Your task to perform on an android device: turn off translation in the chrome app Image 0: 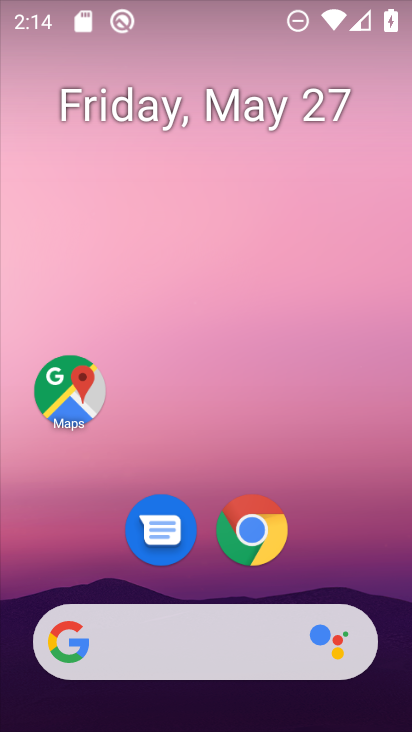
Step 0: click (238, 539)
Your task to perform on an android device: turn off translation in the chrome app Image 1: 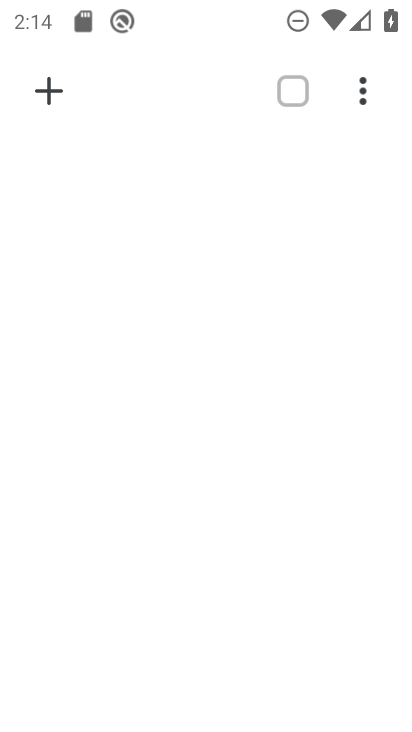
Step 1: click (359, 93)
Your task to perform on an android device: turn off translation in the chrome app Image 2: 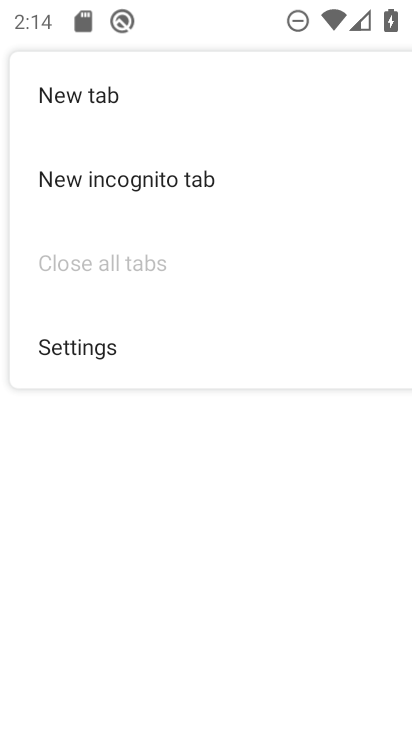
Step 2: click (101, 348)
Your task to perform on an android device: turn off translation in the chrome app Image 3: 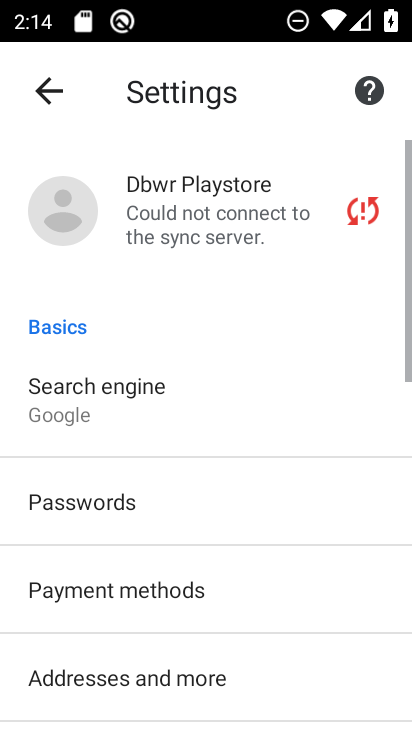
Step 3: drag from (272, 666) to (264, 249)
Your task to perform on an android device: turn off translation in the chrome app Image 4: 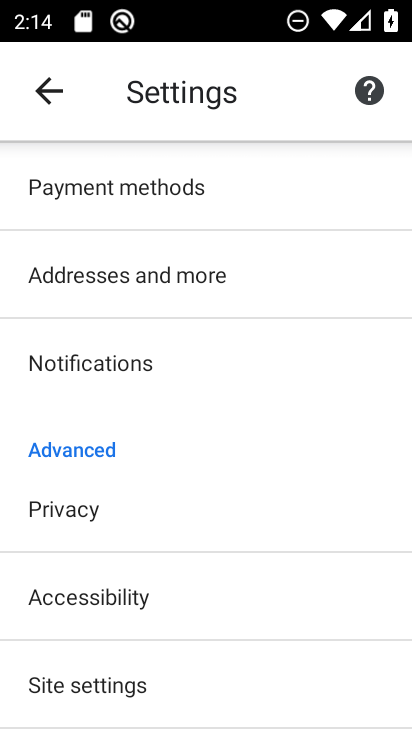
Step 4: drag from (227, 621) to (230, 380)
Your task to perform on an android device: turn off translation in the chrome app Image 5: 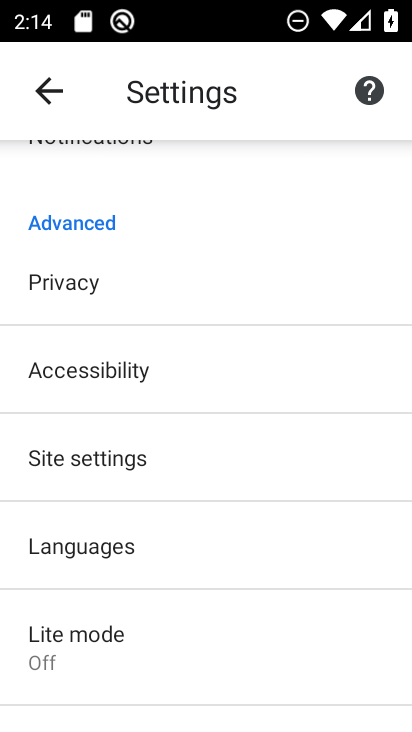
Step 5: click (79, 554)
Your task to perform on an android device: turn off translation in the chrome app Image 6: 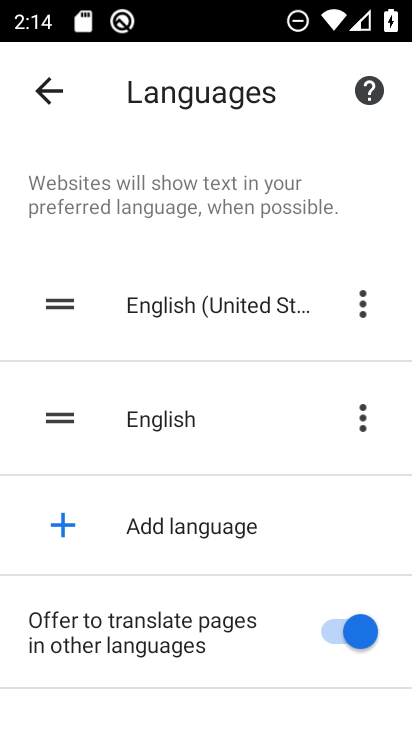
Step 6: click (346, 624)
Your task to perform on an android device: turn off translation in the chrome app Image 7: 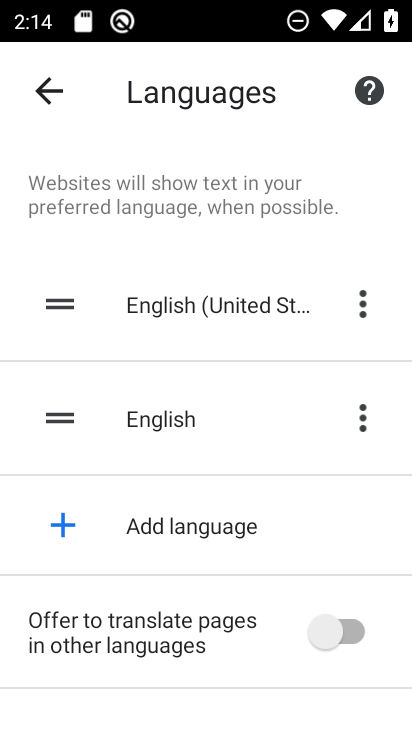
Step 7: task complete